Your task to perform on an android device: change the clock display to digital Image 0: 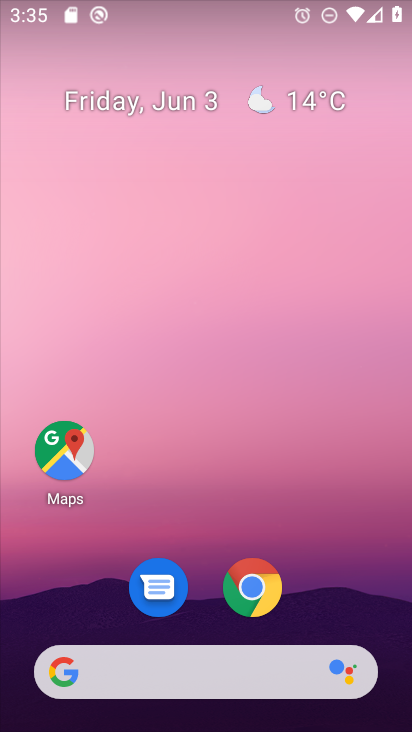
Step 0: drag from (246, 29) to (214, 96)
Your task to perform on an android device: change the clock display to digital Image 1: 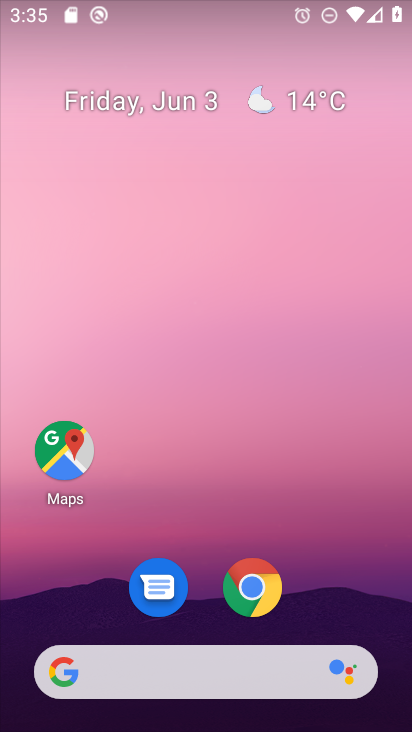
Step 1: drag from (252, 599) to (252, 80)
Your task to perform on an android device: change the clock display to digital Image 2: 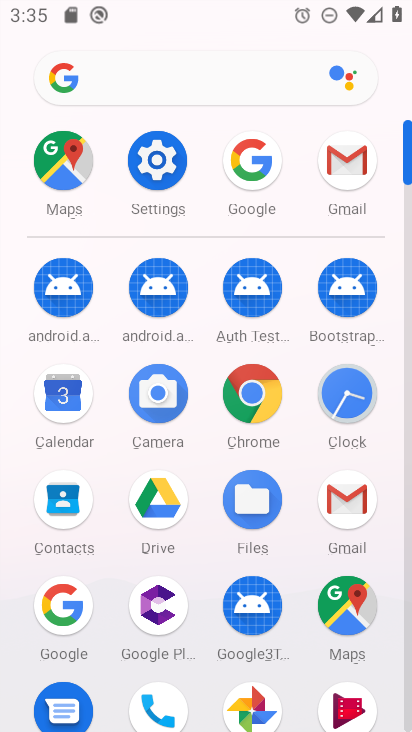
Step 2: click (342, 396)
Your task to perform on an android device: change the clock display to digital Image 3: 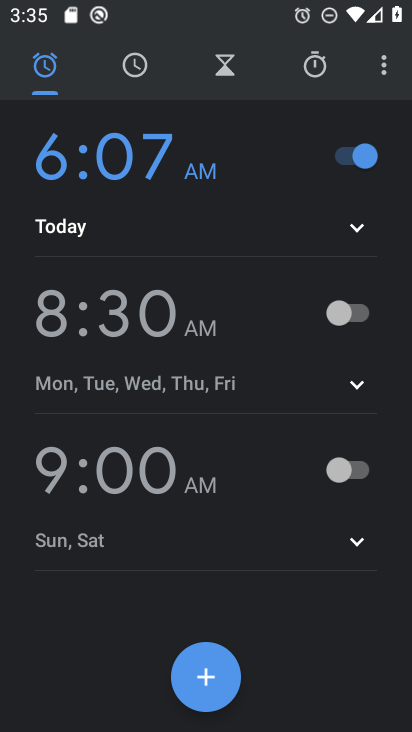
Step 3: click (385, 75)
Your task to perform on an android device: change the clock display to digital Image 4: 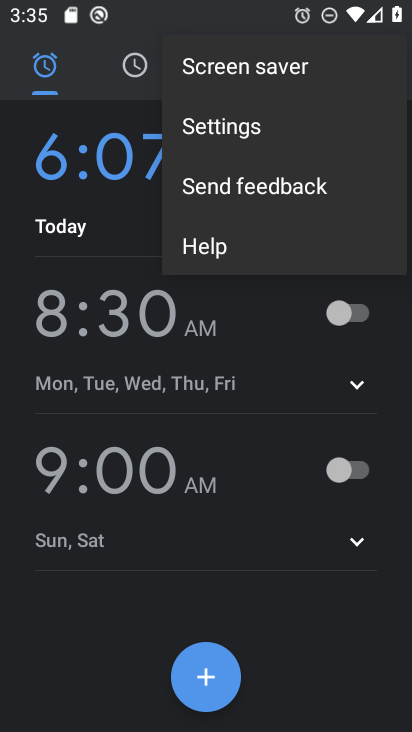
Step 4: click (243, 128)
Your task to perform on an android device: change the clock display to digital Image 5: 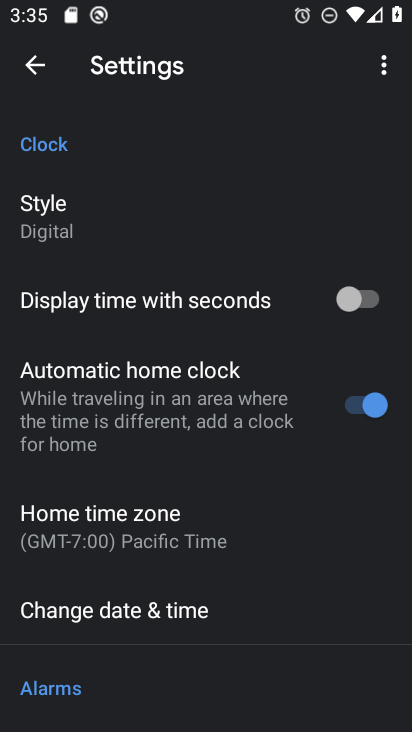
Step 5: task complete